Your task to perform on an android device: open a bookmark in the chrome app Image 0: 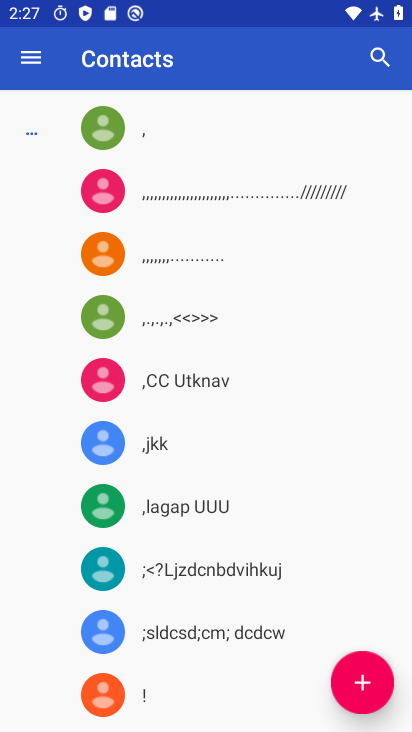
Step 0: press home button
Your task to perform on an android device: open a bookmark in the chrome app Image 1: 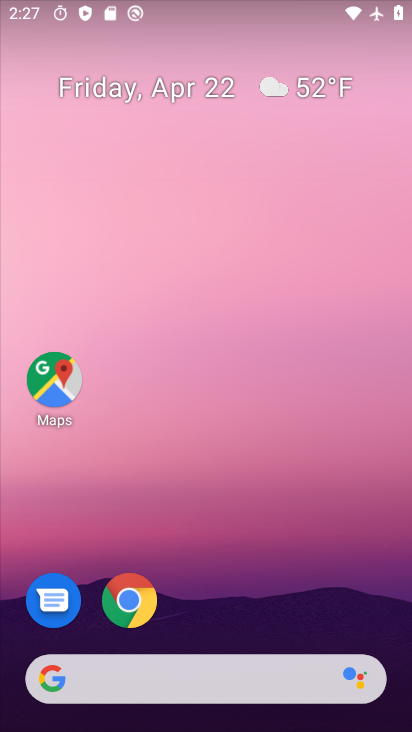
Step 1: click (133, 601)
Your task to perform on an android device: open a bookmark in the chrome app Image 2: 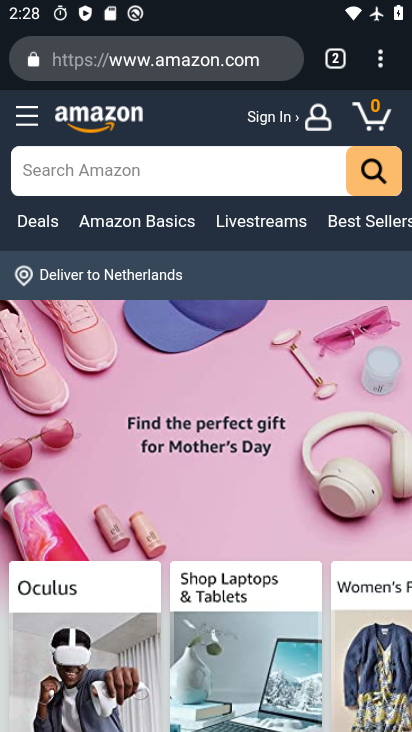
Step 2: click (381, 68)
Your task to perform on an android device: open a bookmark in the chrome app Image 3: 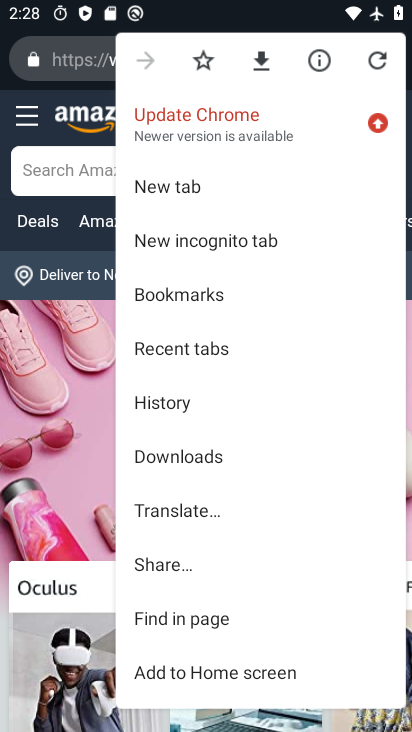
Step 3: click (172, 293)
Your task to perform on an android device: open a bookmark in the chrome app Image 4: 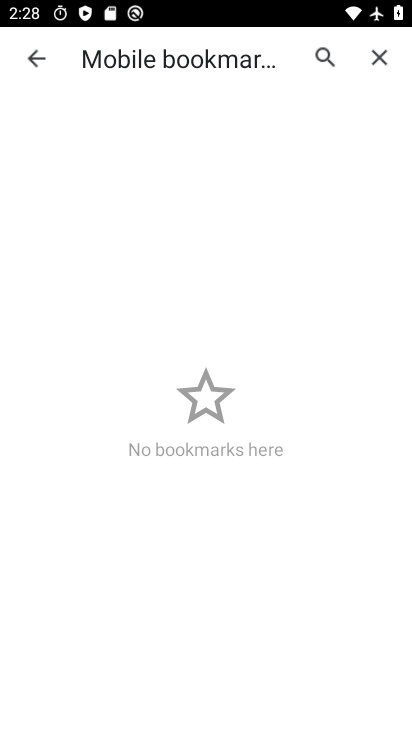
Step 4: task complete